Your task to perform on an android device: Go to Yahoo.com Image 0: 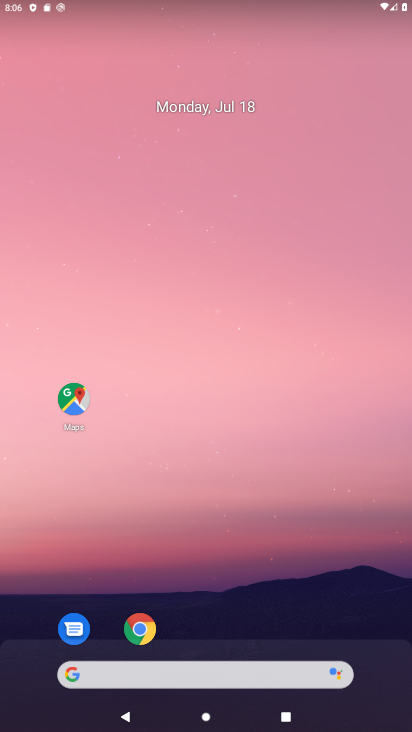
Step 0: click (143, 625)
Your task to perform on an android device: Go to Yahoo.com Image 1: 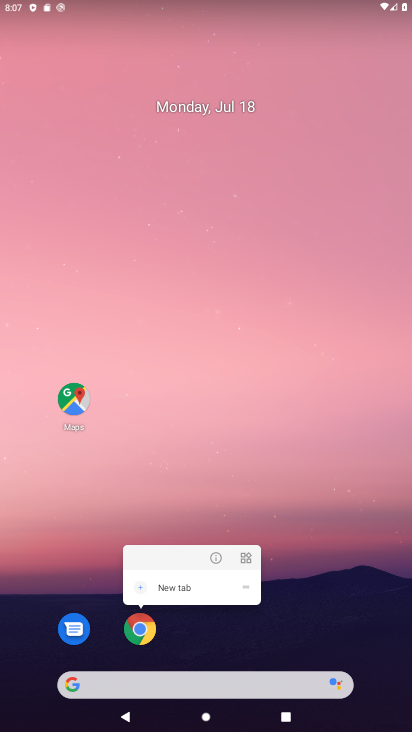
Step 1: click (142, 628)
Your task to perform on an android device: Go to Yahoo.com Image 2: 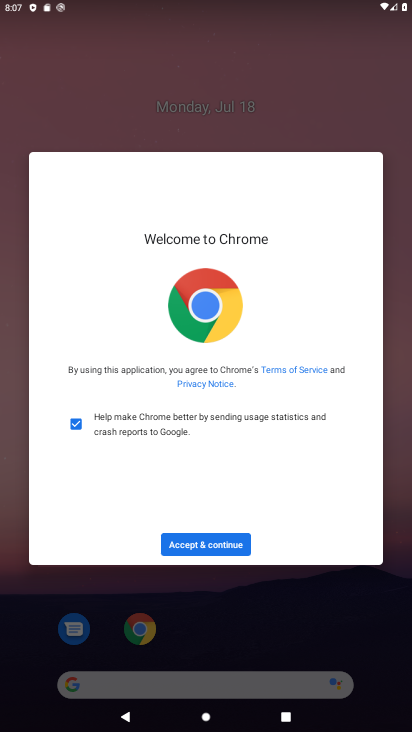
Step 2: click (191, 544)
Your task to perform on an android device: Go to Yahoo.com Image 3: 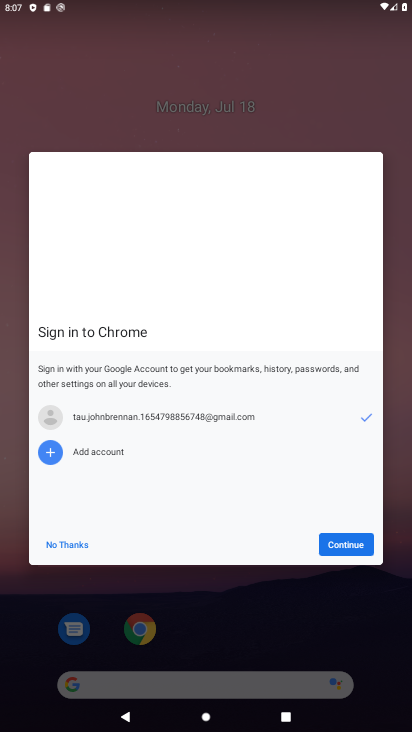
Step 3: click (345, 543)
Your task to perform on an android device: Go to Yahoo.com Image 4: 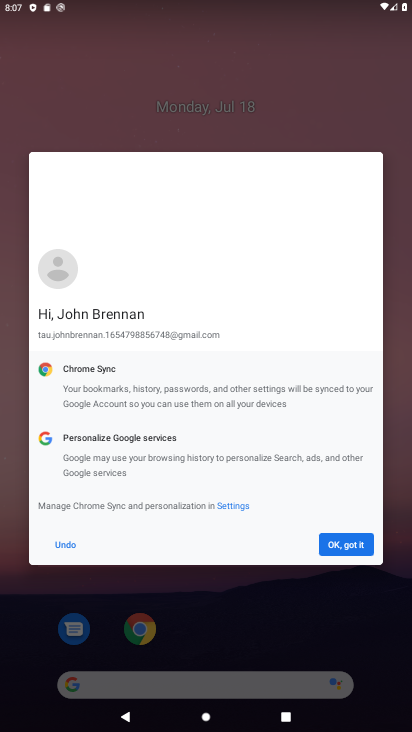
Step 4: click (346, 544)
Your task to perform on an android device: Go to Yahoo.com Image 5: 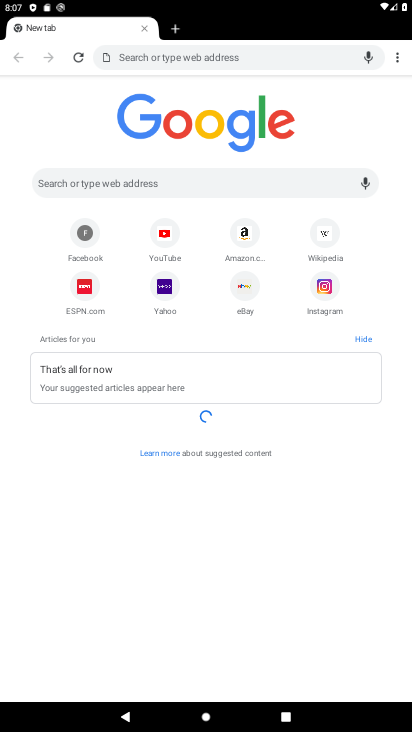
Step 5: click (170, 284)
Your task to perform on an android device: Go to Yahoo.com Image 6: 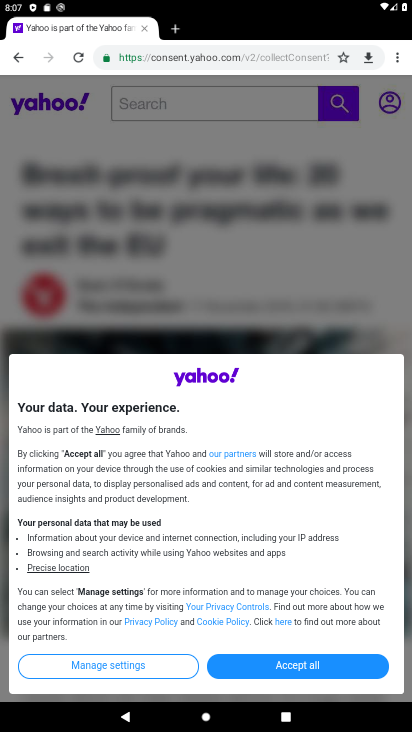
Step 6: task complete